Your task to perform on an android device: turn on the 12-hour format for clock Image 0: 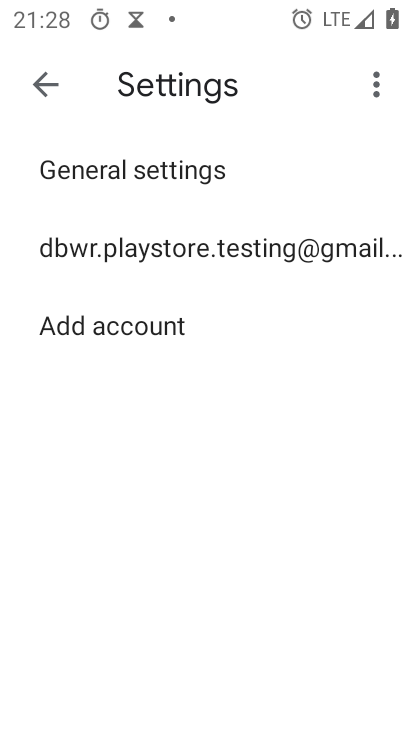
Step 0: press home button
Your task to perform on an android device: turn on the 12-hour format for clock Image 1: 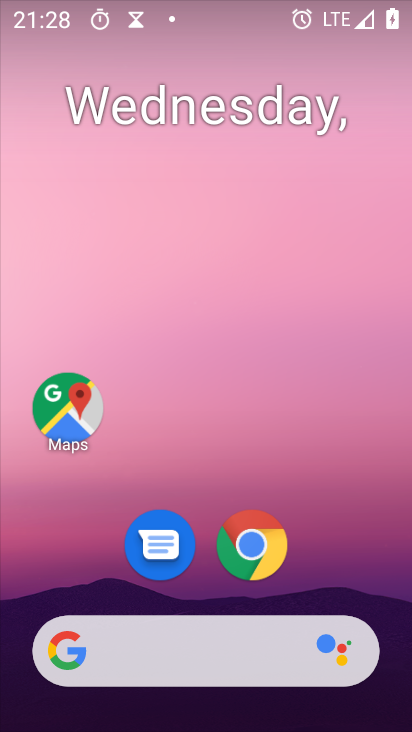
Step 1: drag from (218, 662) to (373, 162)
Your task to perform on an android device: turn on the 12-hour format for clock Image 2: 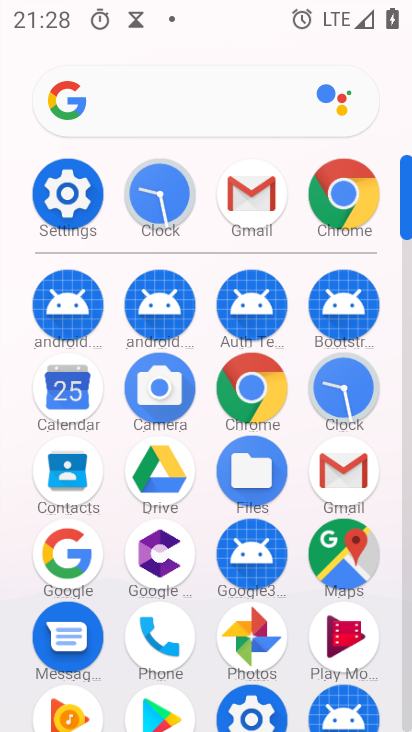
Step 2: click (339, 406)
Your task to perform on an android device: turn on the 12-hour format for clock Image 3: 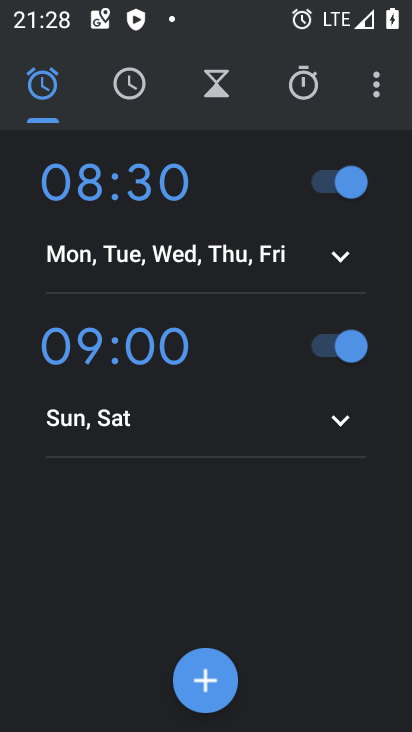
Step 3: click (379, 86)
Your task to perform on an android device: turn on the 12-hour format for clock Image 4: 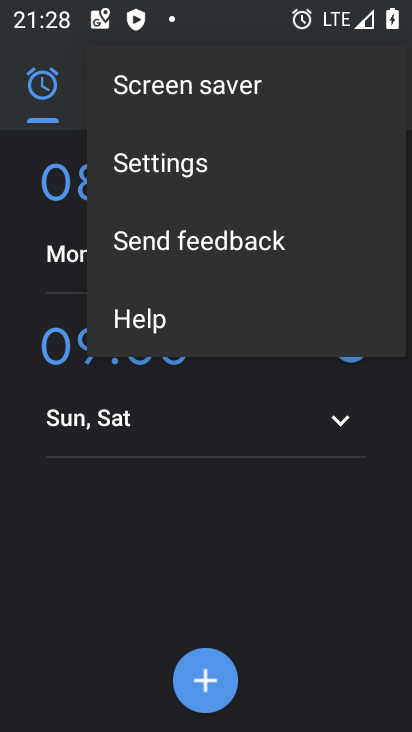
Step 4: click (173, 171)
Your task to perform on an android device: turn on the 12-hour format for clock Image 5: 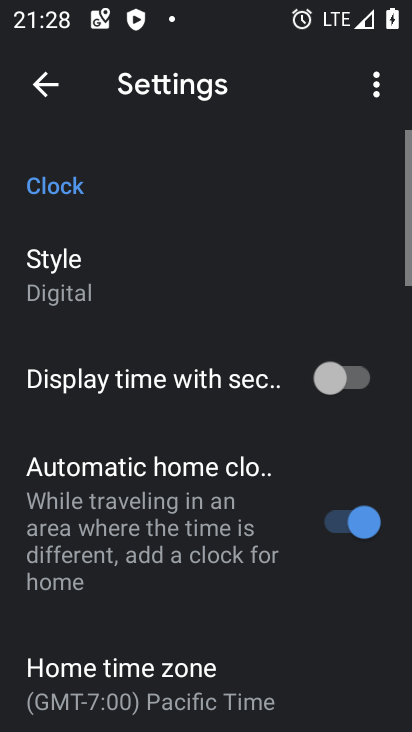
Step 5: drag from (195, 576) to (347, 69)
Your task to perform on an android device: turn on the 12-hour format for clock Image 6: 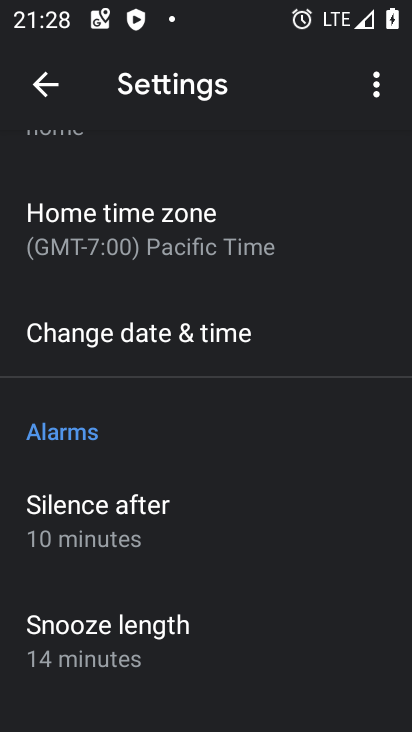
Step 6: click (203, 338)
Your task to perform on an android device: turn on the 12-hour format for clock Image 7: 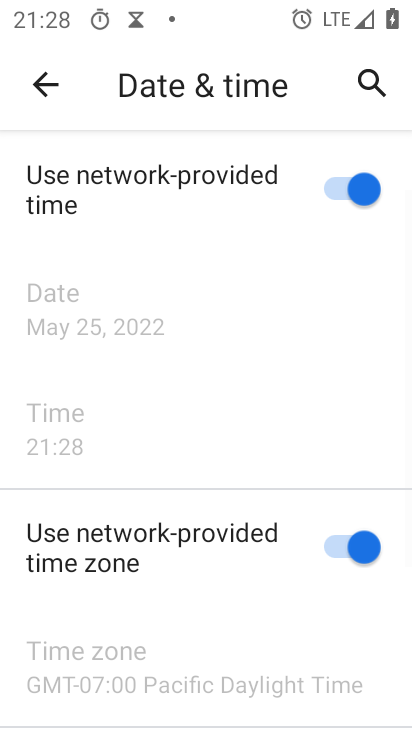
Step 7: drag from (206, 639) to (368, 114)
Your task to perform on an android device: turn on the 12-hour format for clock Image 8: 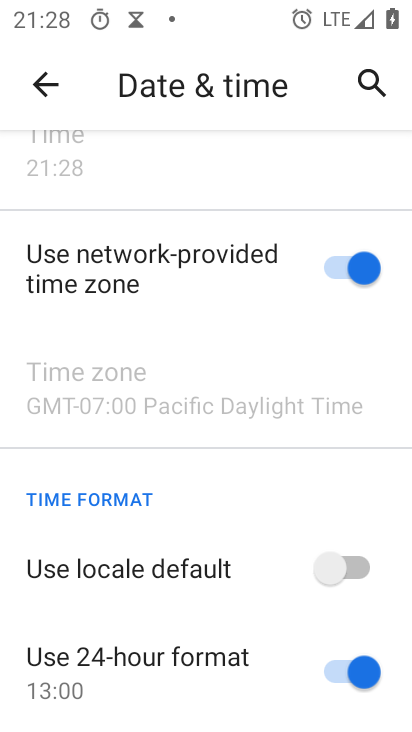
Step 8: click (360, 570)
Your task to perform on an android device: turn on the 12-hour format for clock Image 9: 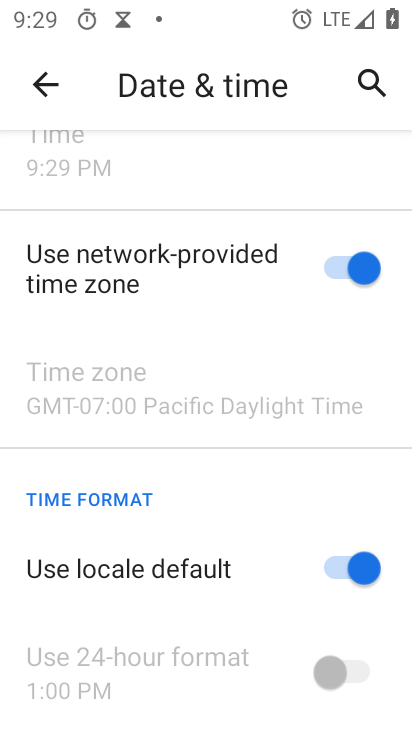
Step 9: task complete